Your task to perform on an android device: read, delete, or share a saved page in the chrome app Image 0: 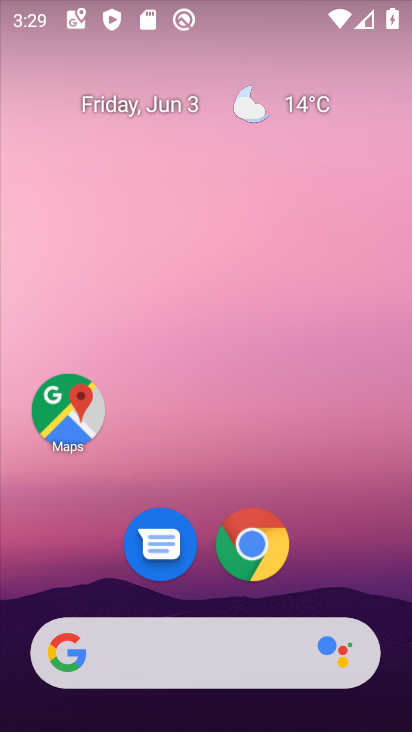
Step 0: click (252, 539)
Your task to perform on an android device: read, delete, or share a saved page in the chrome app Image 1: 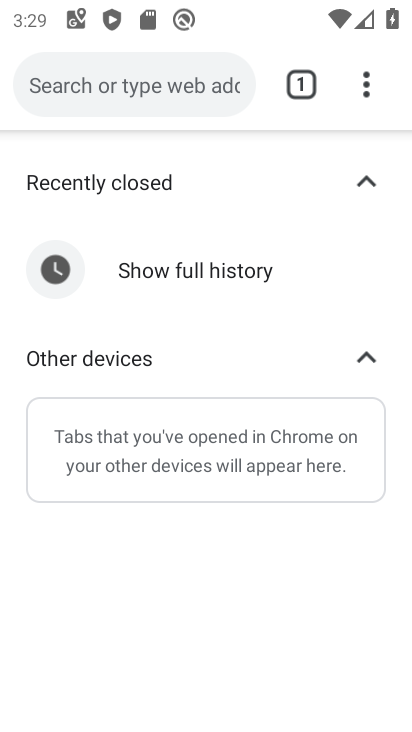
Step 1: click (361, 94)
Your task to perform on an android device: read, delete, or share a saved page in the chrome app Image 2: 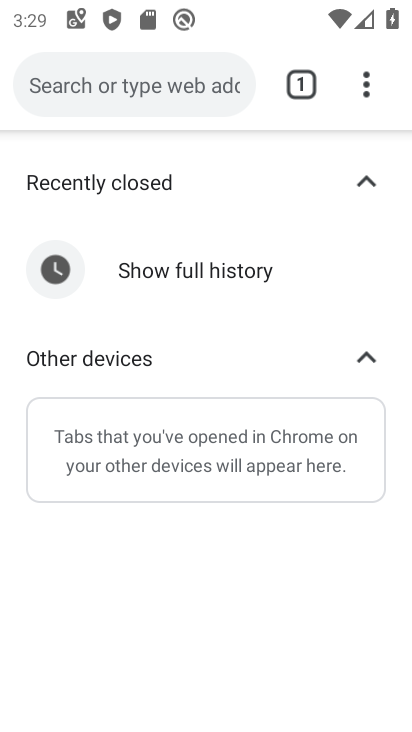
Step 2: click (364, 89)
Your task to perform on an android device: read, delete, or share a saved page in the chrome app Image 3: 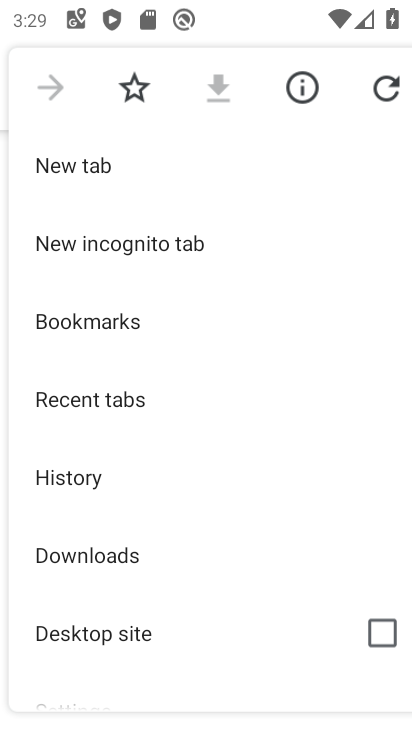
Step 3: click (88, 558)
Your task to perform on an android device: read, delete, or share a saved page in the chrome app Image 4: 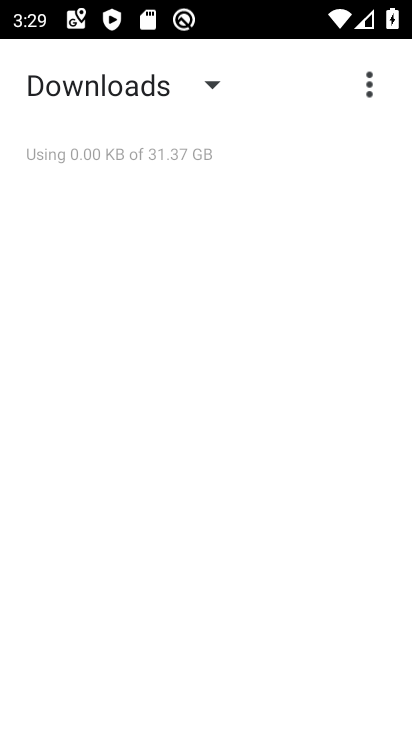
Step 4: click (216, 86)
Your task to perform on an android device: read, delete, or share a saved page in the chrome app Image 5: 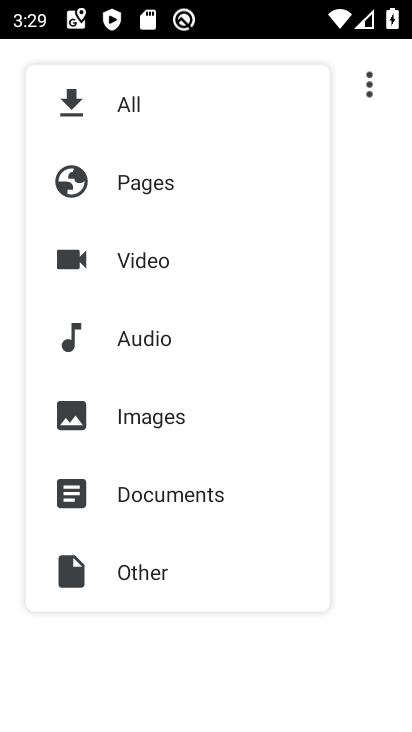
Step 5: click (140, 186)
Your task to perform on an android device: read, delete, or share a saved page in the chrome app Image 6: 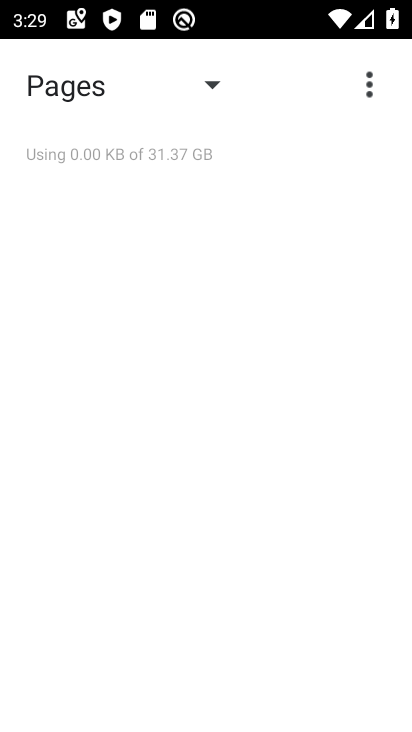
Step 6: task complete